Your task to perform on an android device: check storage Image 0: 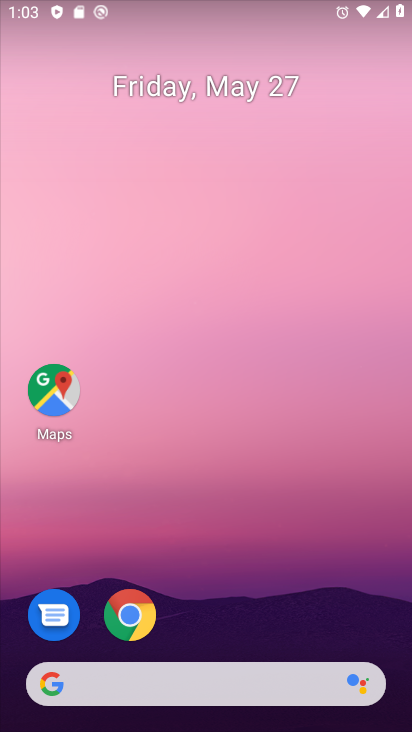
Step 0: press home button
Your task to perform on an android device: check storage Image 1: 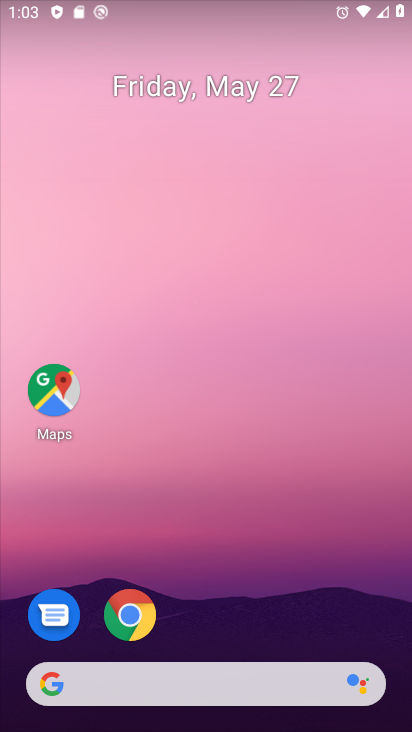
Step 1: drag from (289, 629) to (246, 149)
Your task to perform on an android device: check storage Image 2: 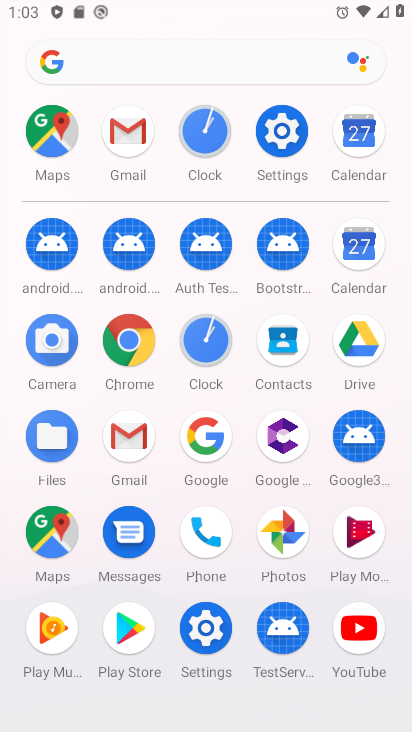
Step 2: click (295, 139)
Your task to perform on an android device: check storage Image 3: 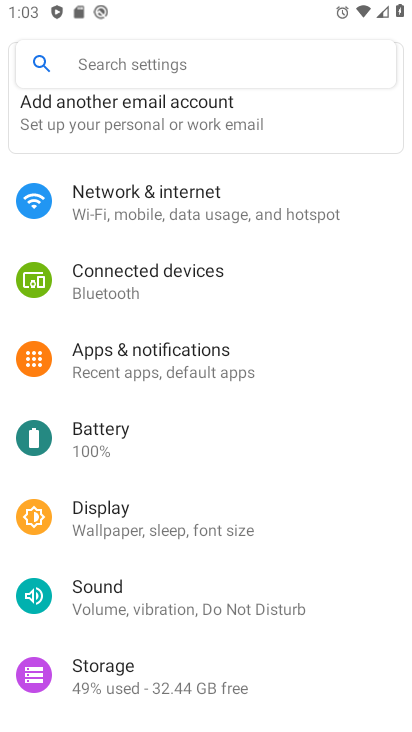
Step 3: click (107, 689)
Your task to perform on an android device: check storage Image 4: 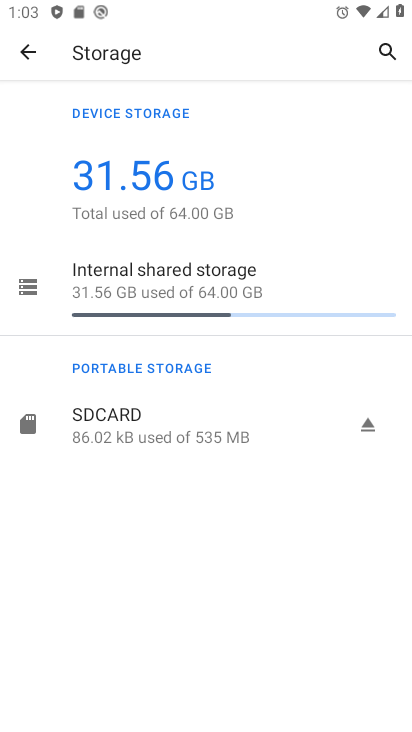
Step 4: task complete